Your task to perform on an android device: open wifi settings Image 0: 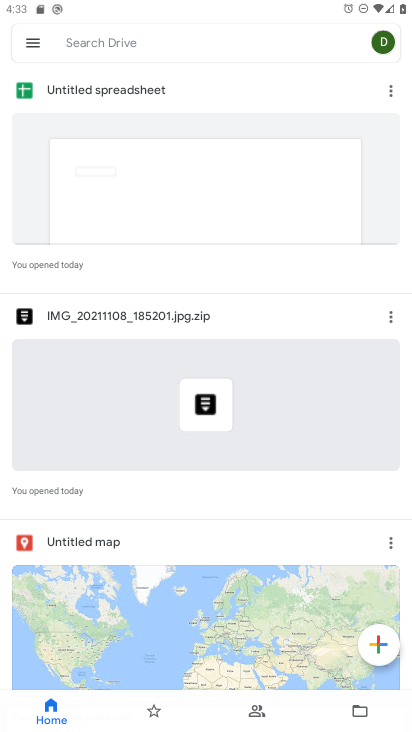
Step 0: press home button
Your task to perform on an android device: open wifi settings Image 1: 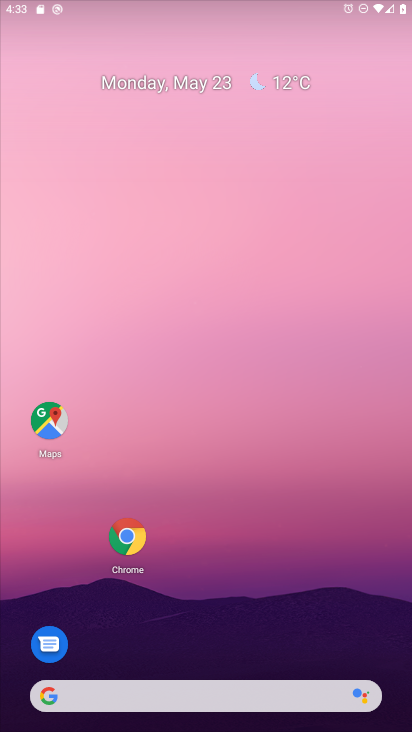
Step 1: drag from (323, 524) to (329, 125)
Your task to perform on an android device: open wifi settings Image 2: 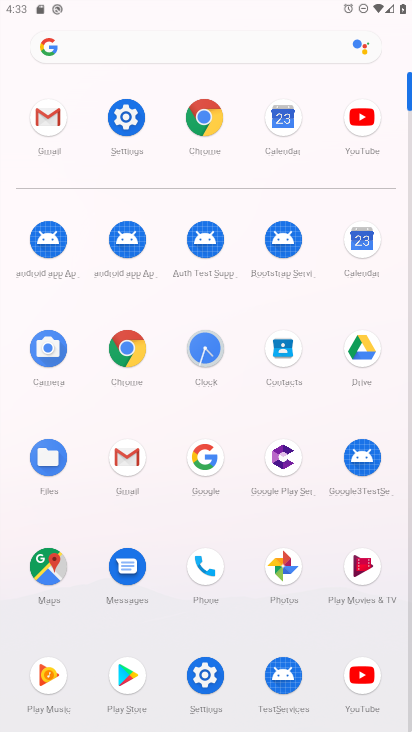
Step 2: click (127, 119)
Your task to perform on an android device: open wifi settings Image 3: 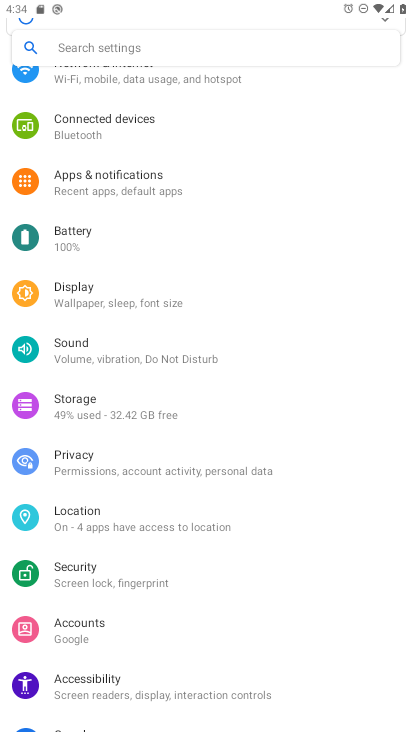
Step 3: drag from (213, 163) to (180, 566)
Your task to perform on an android device: open wifi settings Image 4: 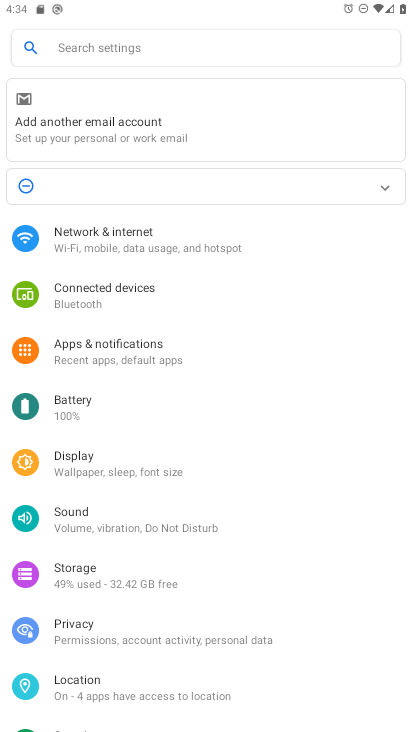
Step 4: click (87, 242)
Your task to perform on an android device: open wifi settings Image 5: 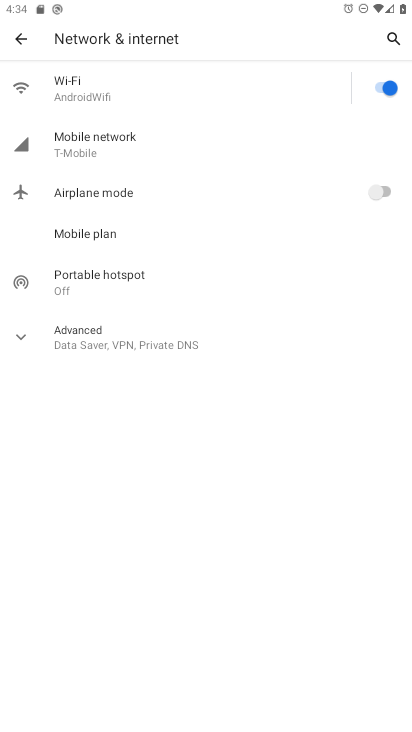
Step 5: click (153, 104)
Your task to perform on an android device: open wifi settings Image 6: 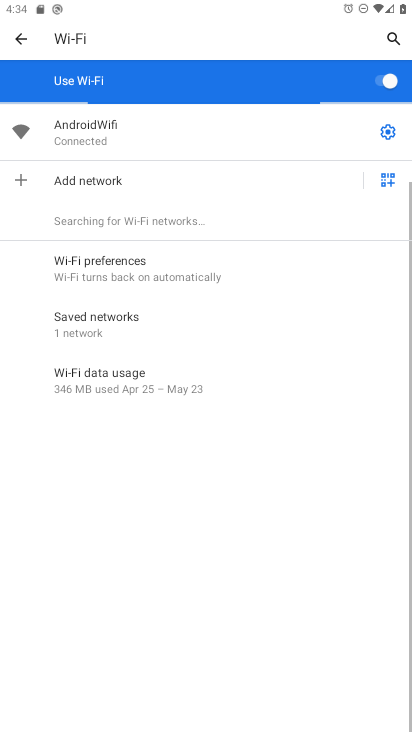
Step 6: click (385, 132)
Your task to perform on an android device: open wifi settings Image 7: 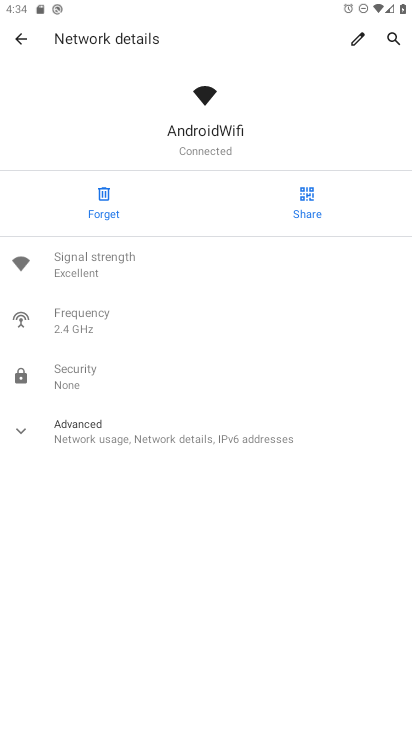
Step 7: task complete